Your task to perform on an android device: Show me productivity apps on the Play Store Image 0: 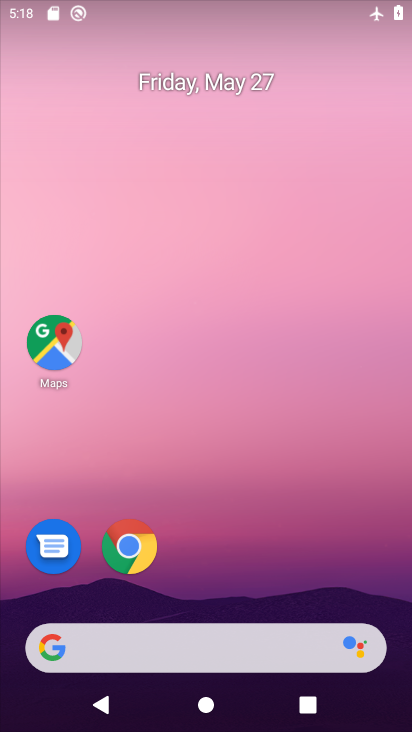
Step 0: drag from (246, 599) to (212, 222)
Your task to perform on an android device: Show me productivity apps on the Play Store Image 1: 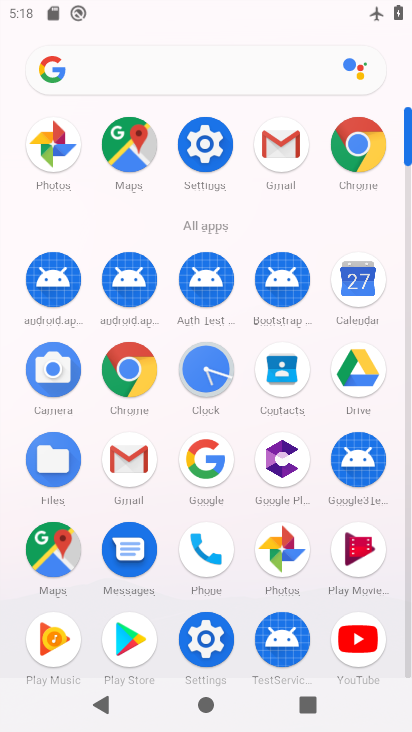
Step 1: click (141, 637)
Your task to perform on an android device: Show me productivity apps on the Play Store Image 2: 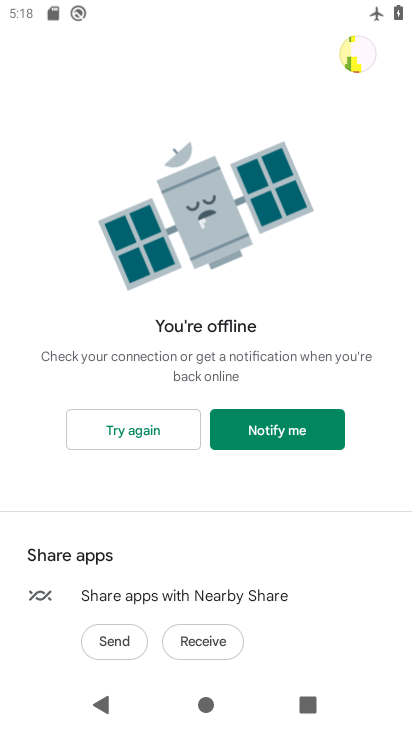
Step 2: click (169, 429)
Your task to perform on an android device: Show me productivity apps on the Play Store Image 3: 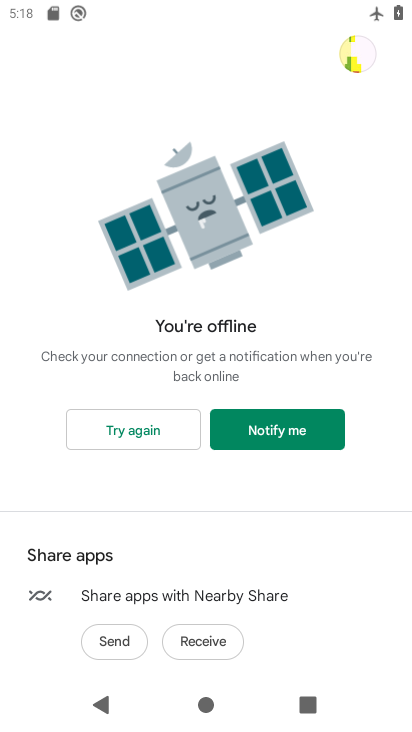
Step 3: click (171, 416)
Your task to perform on an android device: Show me productivity apps on the Play Store Image 4: 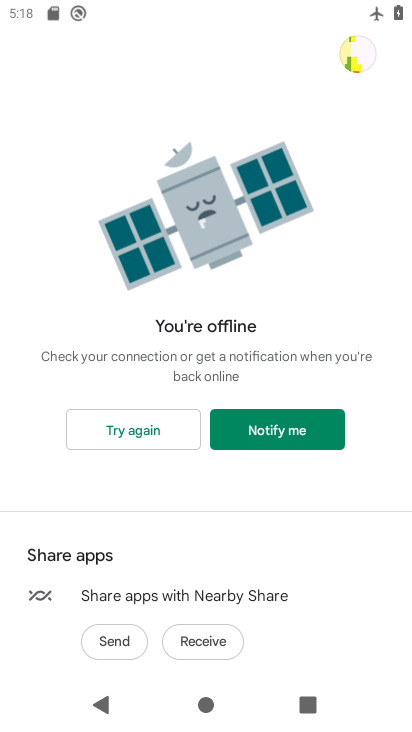
Step 4: task complete